Your task to perform on an android device: check android version Image 0: 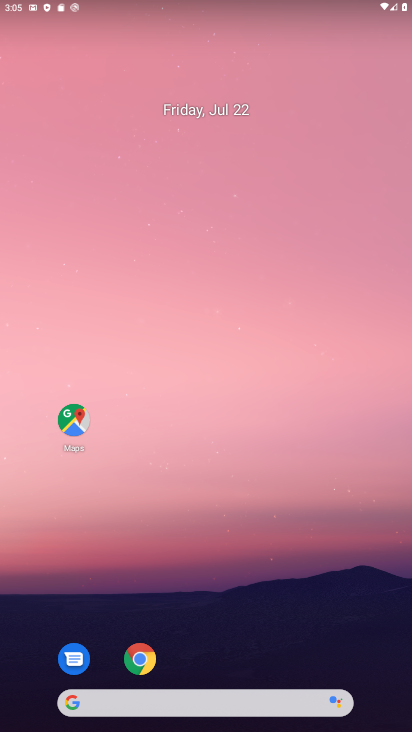
Step 0: drag from (271, 641) to (271, 88)
Your task to perform on an android device: check android version Image 1: 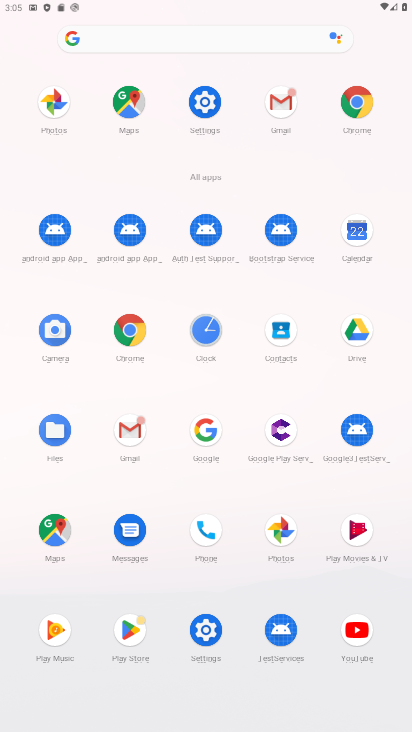
Step 1: click (210, 102)
Your task to perform on an android device: check android version Image 2: 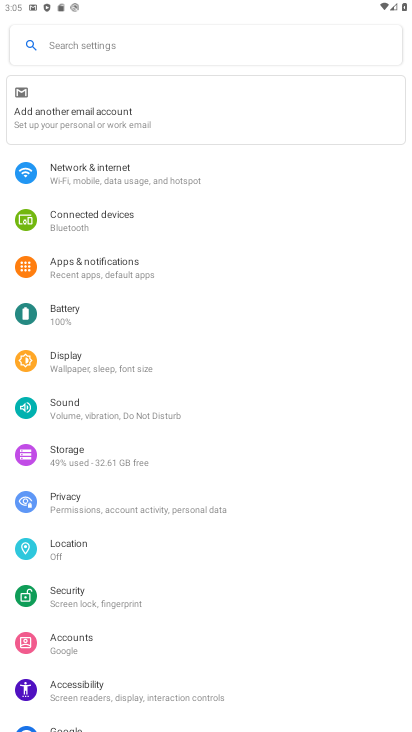
Step 2: task complete